Your task to perform on an android device: Search for "macbook air" on amazon, select the first entry, add it to the cart, then select checkout. Image 0: 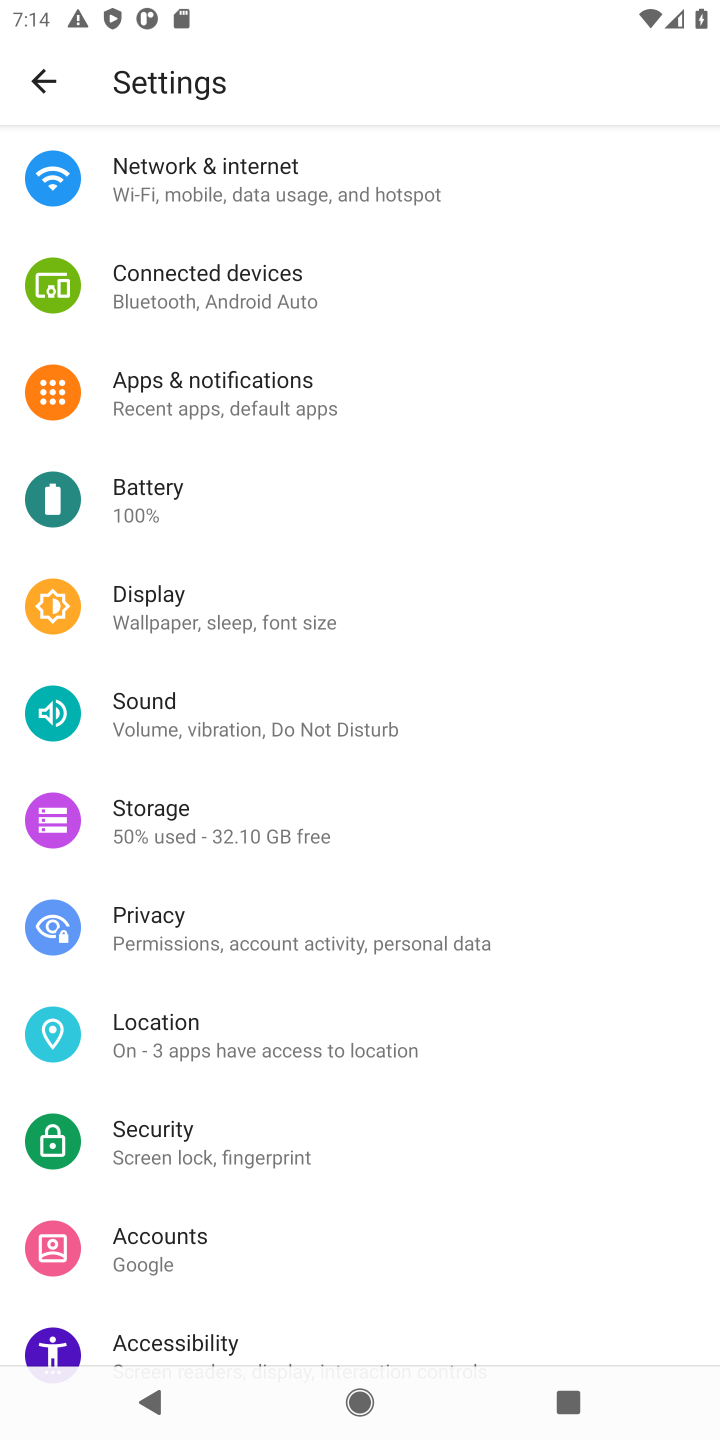
Step 0: press home button
Your task to perform on an android device: Search for "macbook air" on amazon, select the first entry, add it to the cart, then select checkout. Image 1: 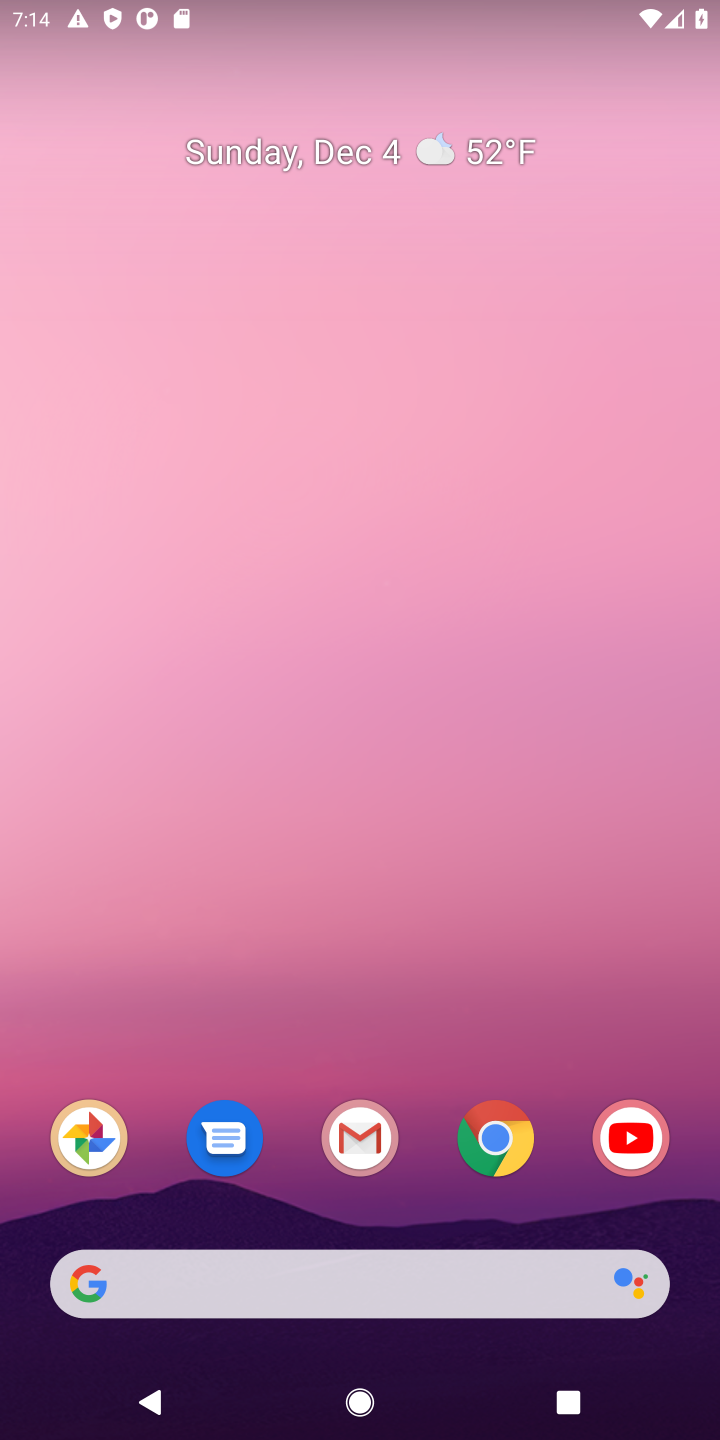
Step 1: click (502, 1152)
Your task to perform on an android device: Search for "macbook air" on amazon, select the first entry, add it to the cart, then select checkout. Image 2: 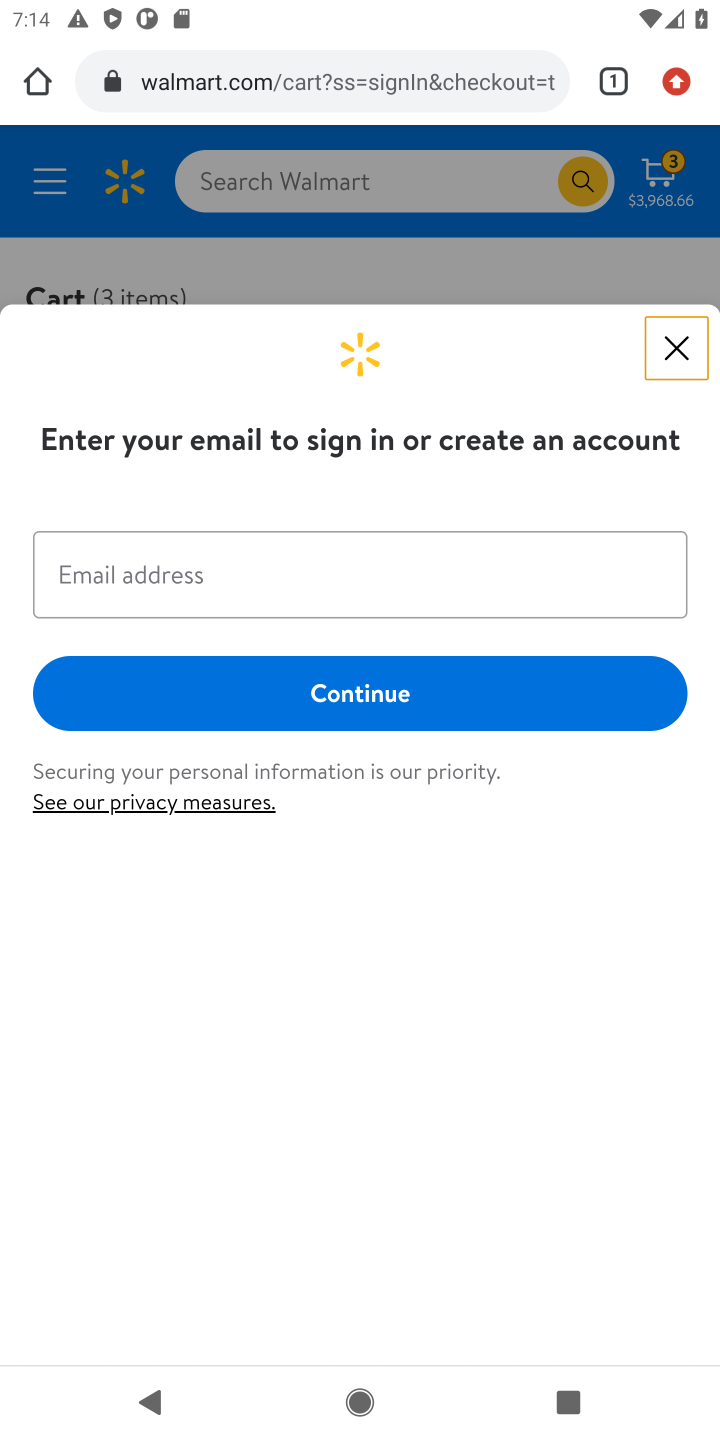
Step 2: click (489, 72)
Your task to perform on an android device: Search for "macbook air" on amazon, select the first entry, add it to the cart, then select checkout. Image 3: 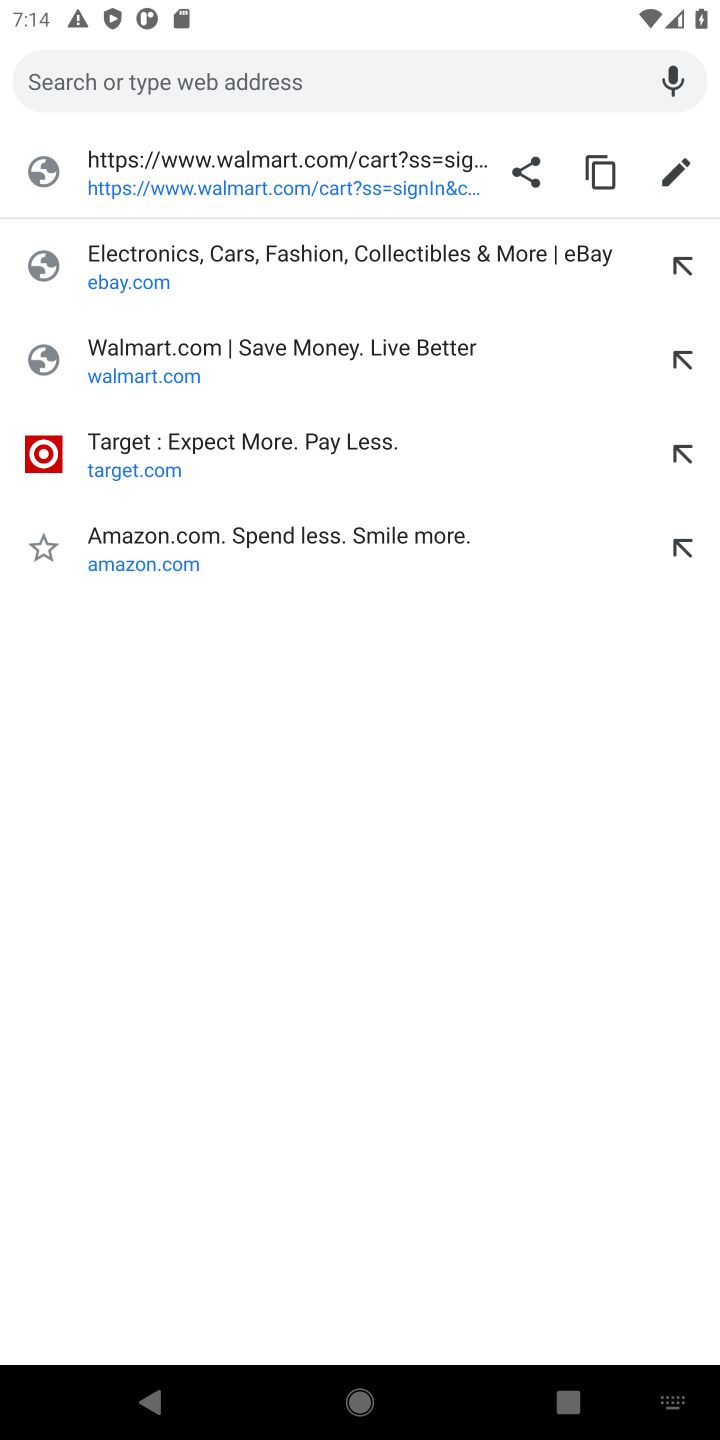
Step 3: click (179, 527)
Your task to perform on an android device: Search for "macbook air" on amazon, select the first entry, add it to the cart, then select checkout. Image 4: 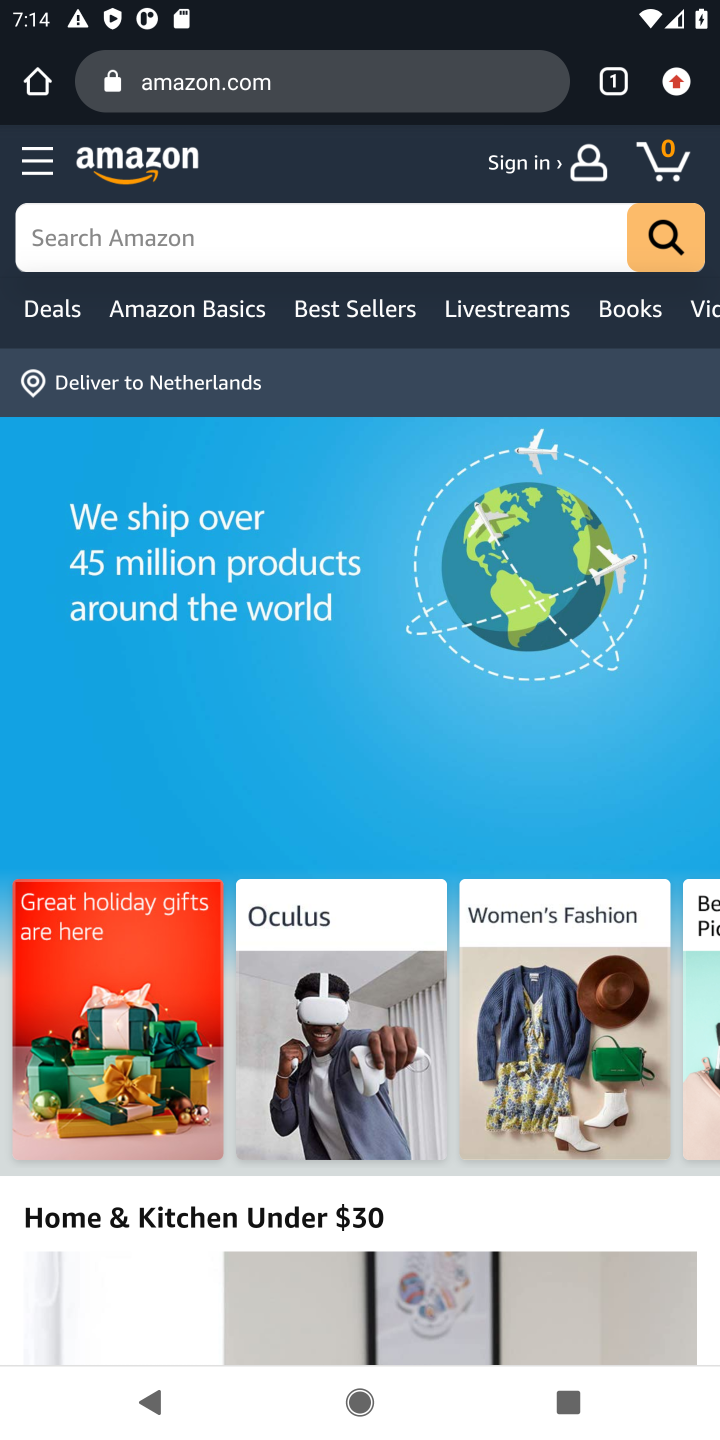
Step 4: click (466, 234)
Your task to perform on an android device: Search for "macbook air" on amazon, select the first entry, add it to the cart, then select checkout. Image 5: 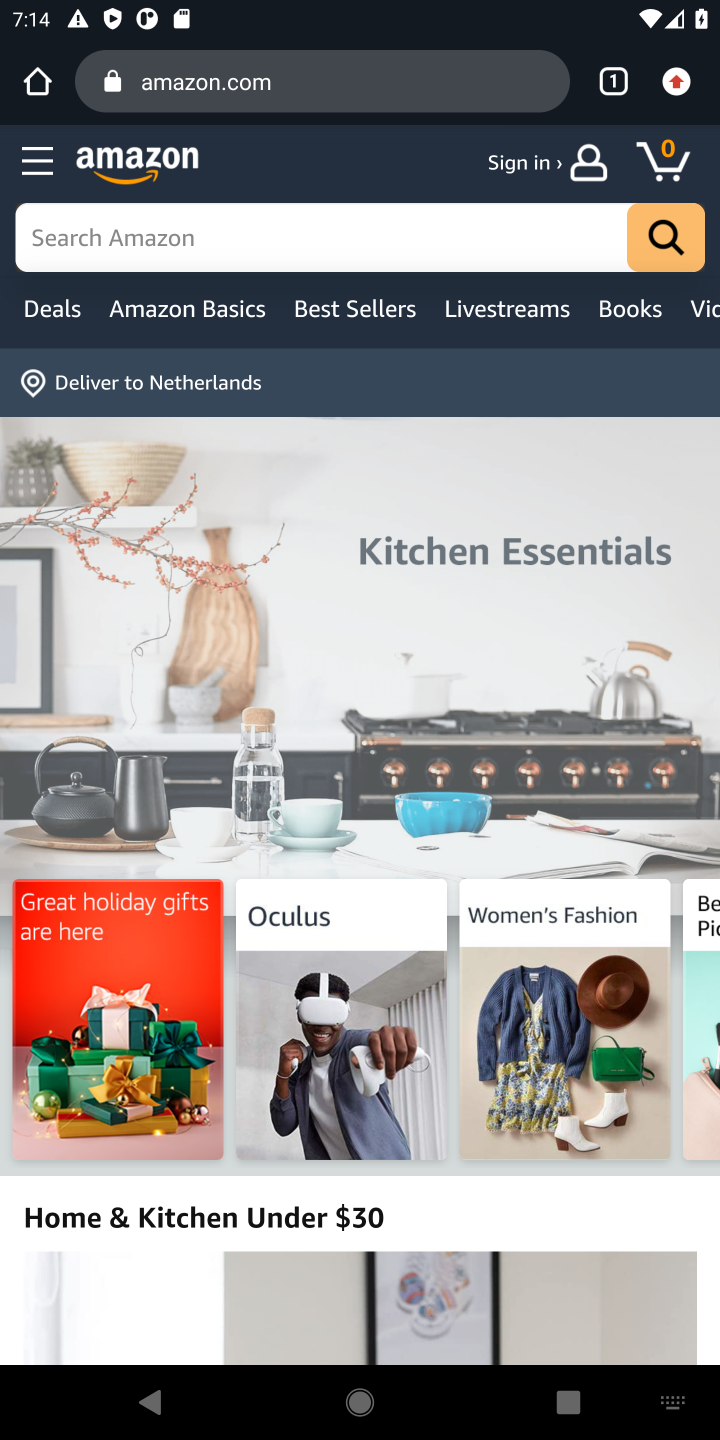
Step 5: press enter
Your task to perform on an android device: Search for "macbook air" on amazon, select the first entry, add it to the cart, then select checkout. Image 6: 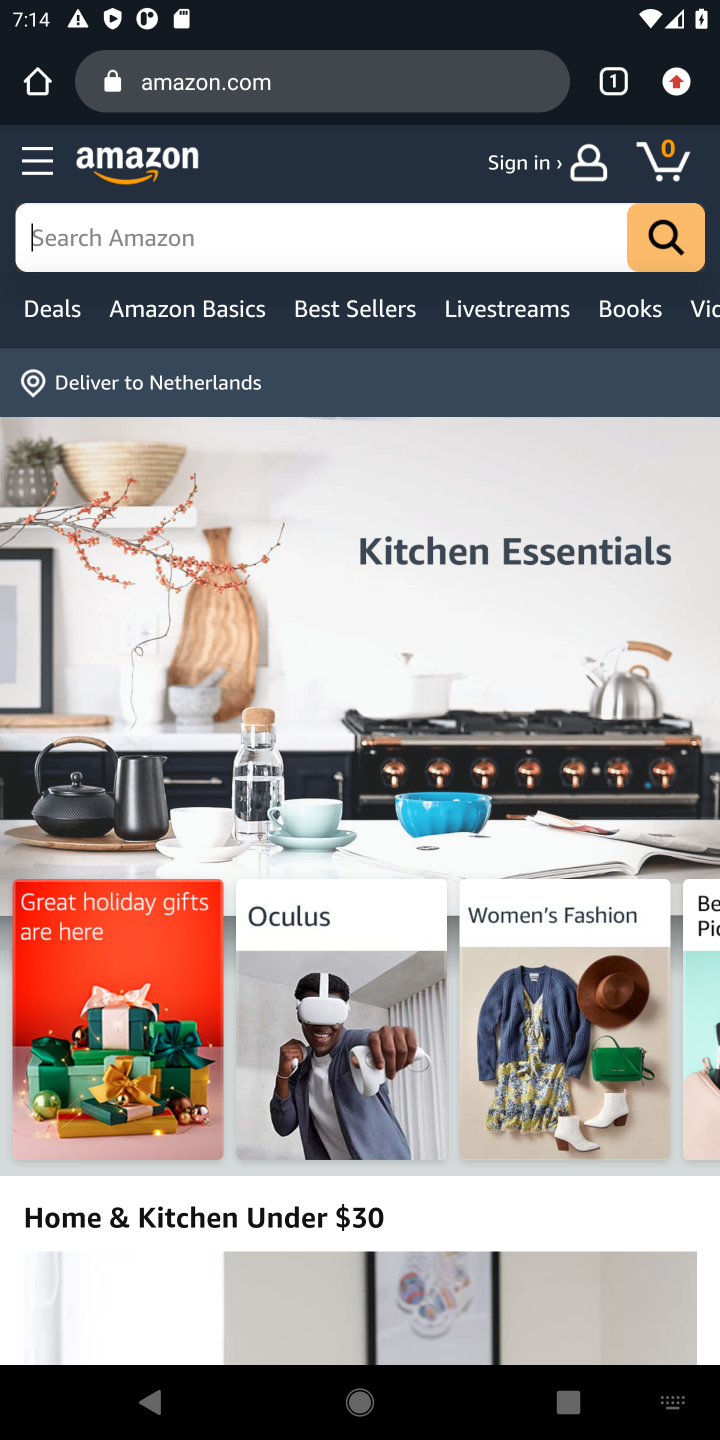
Step 6: type "macbook air"
Your task to perform on an android device: Search for "macbook air" on amazon, select the first entry, add it to the cart, then select checkout. Image 7: 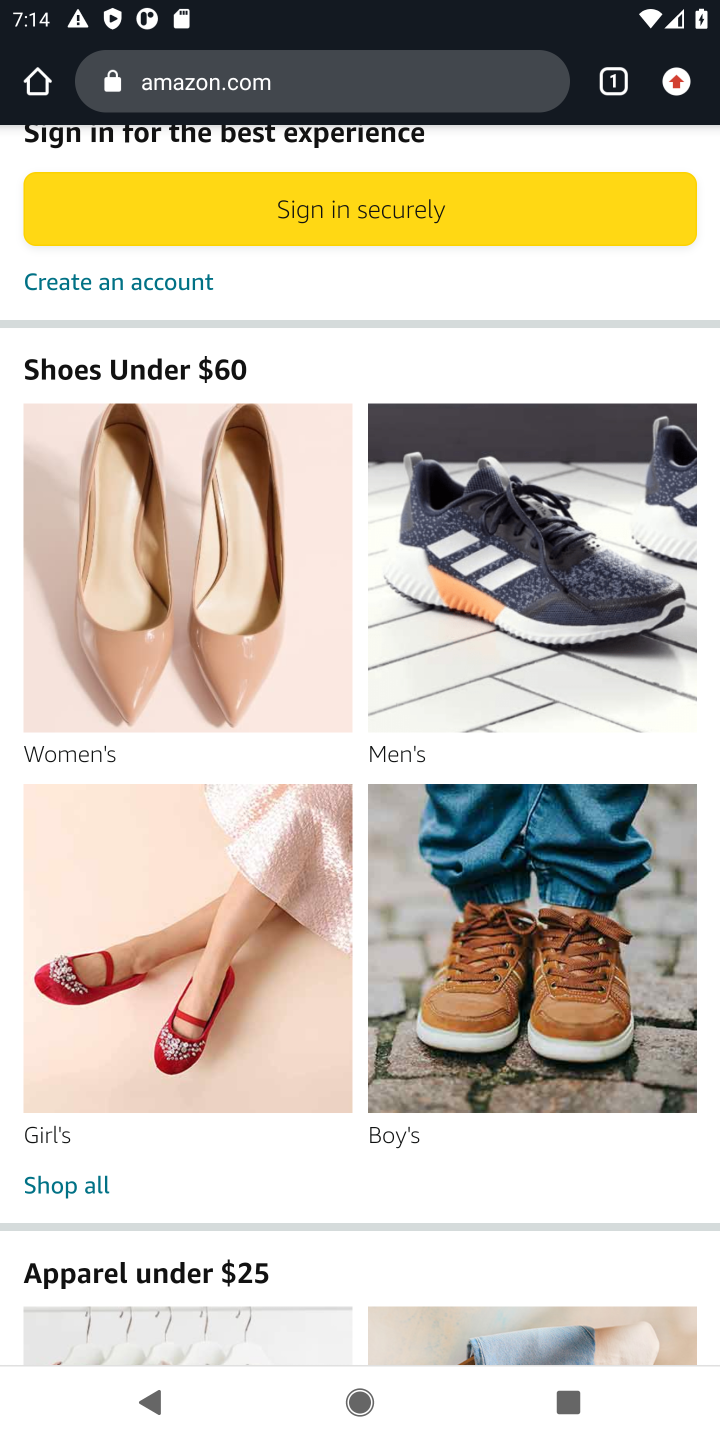
Step 7: drag from (597, 285) to (487, 870)
Your task to perform on an android device: Search for "macbook air" on amazon, select the first entry, add it to the cart, then select checkout. Image 8: 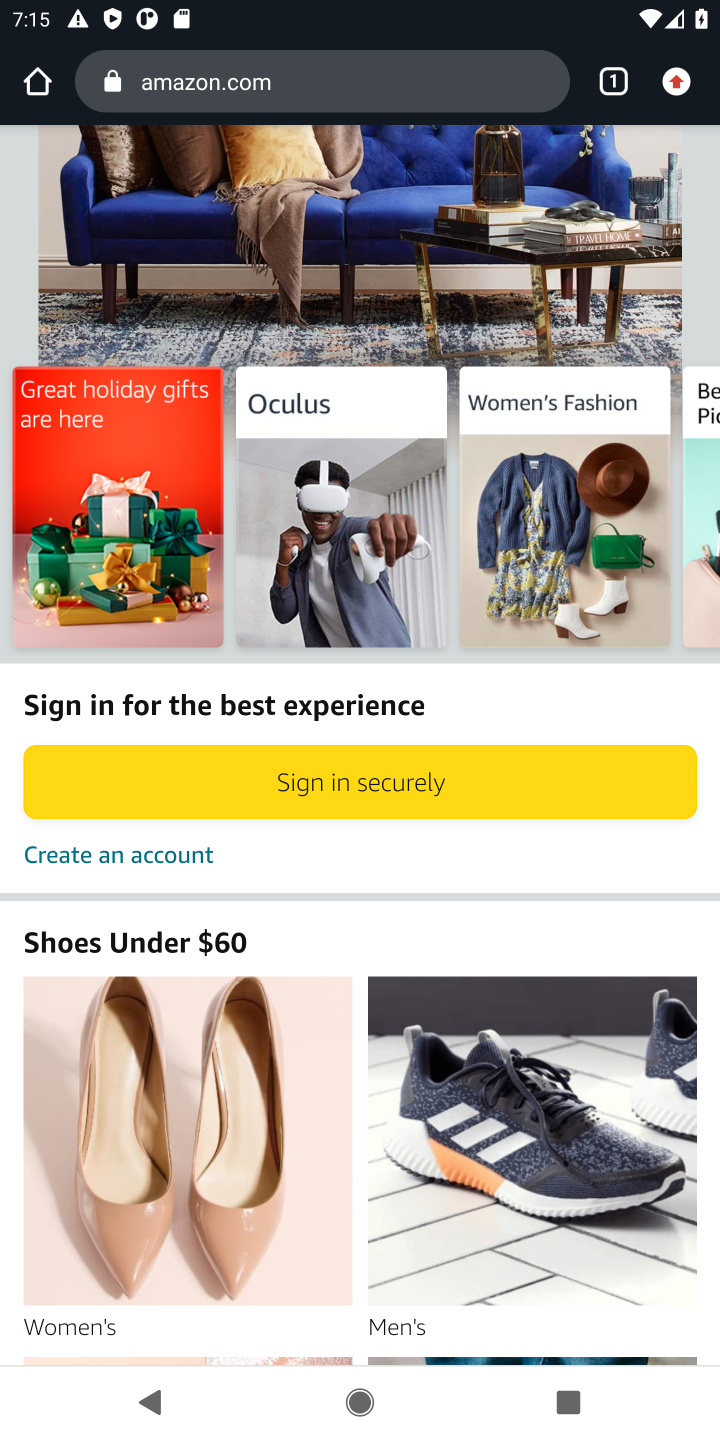
Step 8: click (505, 1175)
Your task to perform on an android device: Search for "macbook air" on amazon, select the first entry, add it to the cart, then select checkout. Image 9: 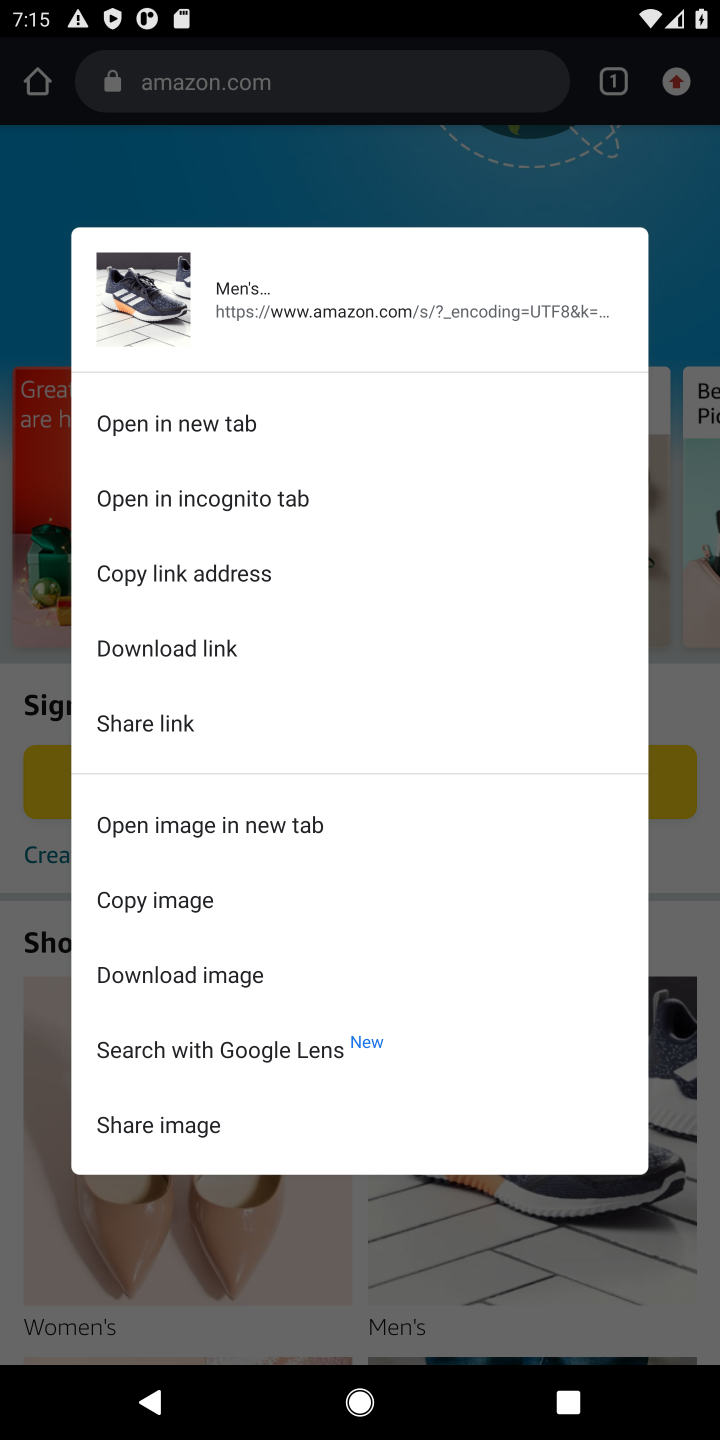
Step 9: task complete